Your task to perform on an android device: Search for pizza restaurants on Maps Image 0: 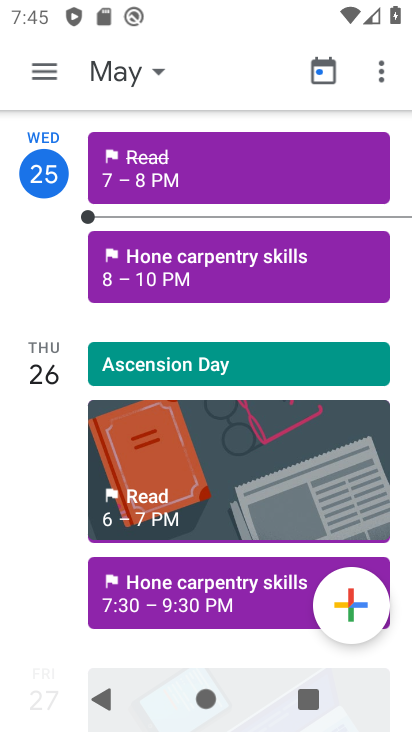
Step 0: press home button
Your task to perform on an android device: Search for pizza restaurants on Maps Image 1: 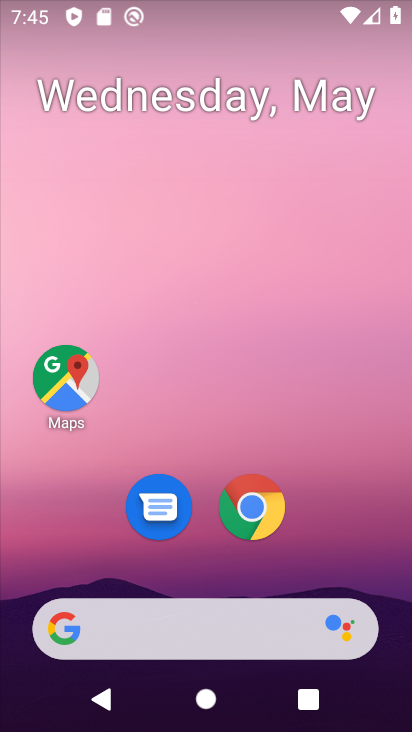
Step 1: click (67, 375)
Your task to perform on an android device: Search for pizza restaurants on Maps Image 2: 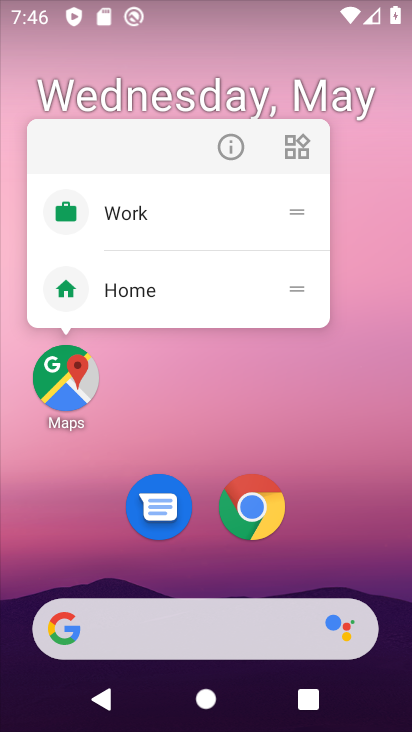
Step 2: click (58, 375)
Your task to perform on an android device: Search for pizza restaurants on Maps Image 3: 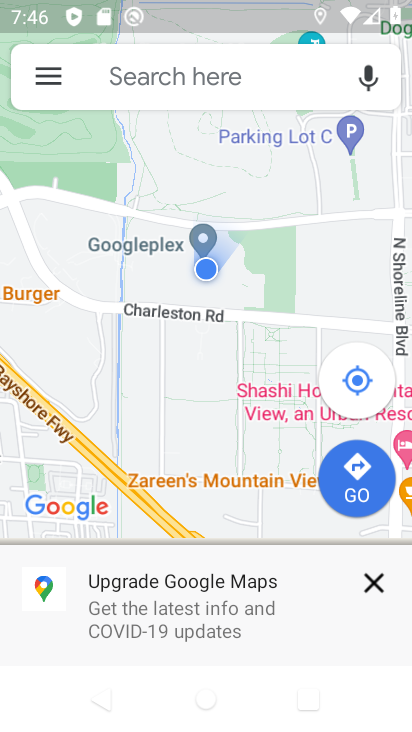
Step 3: click (156, 77)
Your task to perform on an android device: Search for pizza restaurants on Maps Image 4: 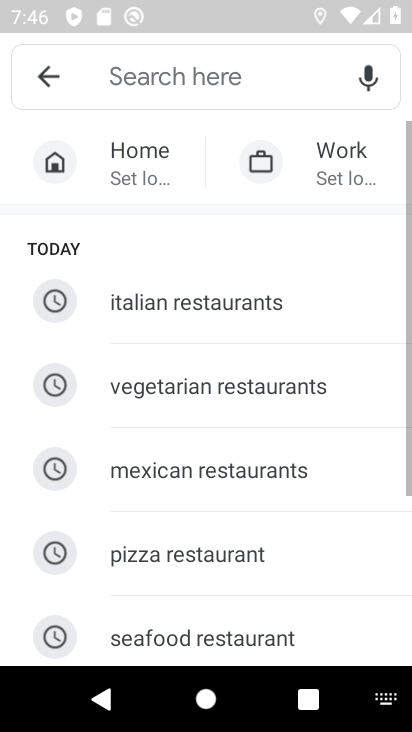
Step 4: click (205, 548)
Your task to perform on an android device: Search for pizza restaurants on Maps Image 5: 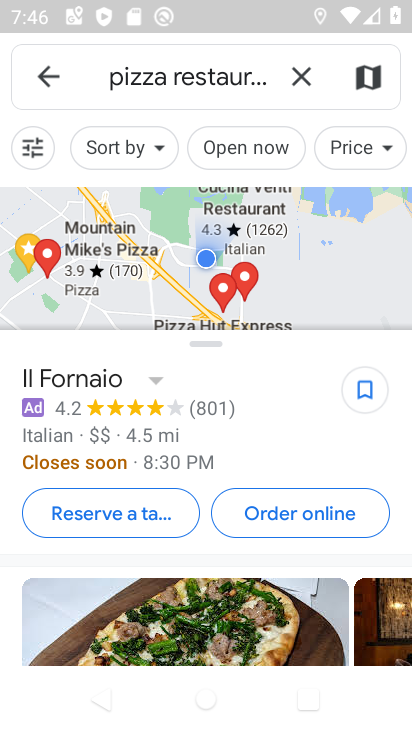
Step 5: task complete